Your task to perform on an android device: turn notification dots on Image 0: 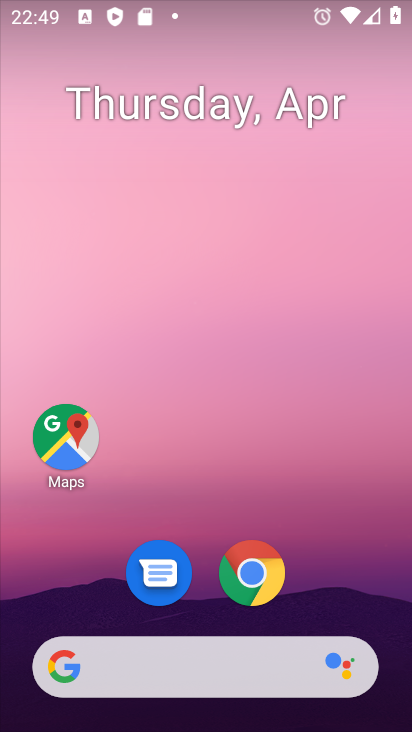
Step 0: drag from (302, 606) to (364, 6)
Your task to perform on an android device: turn notification dots on Image 1: 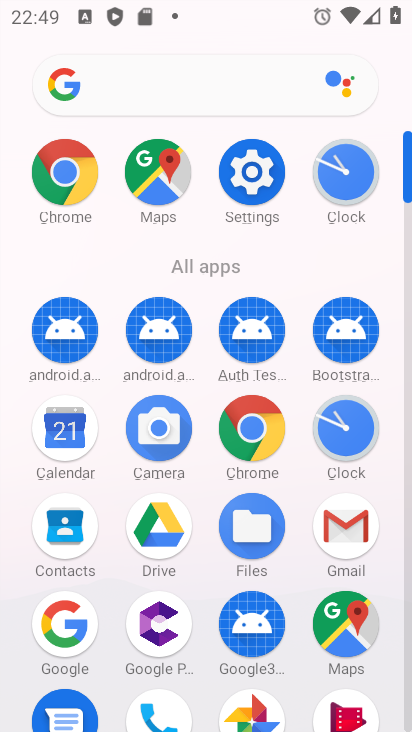
Step 1: click (247, 170)
Your task to perform on an android device: turn notification dots on Image 2: 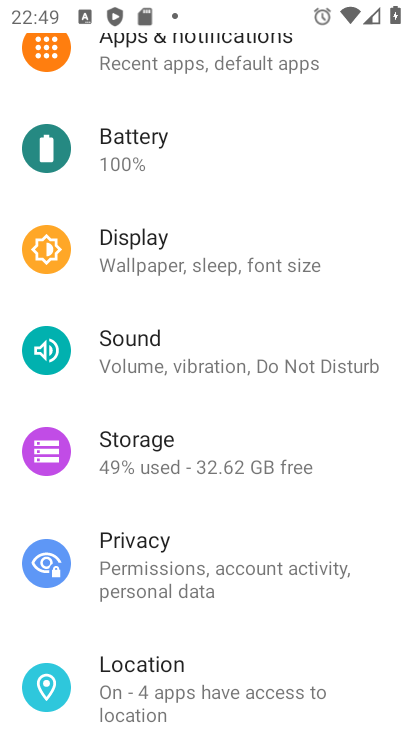
Step 2: drag from (244, 166) to (225, 469)
Your task to perform on an android device: turn notification dots on Image 3: 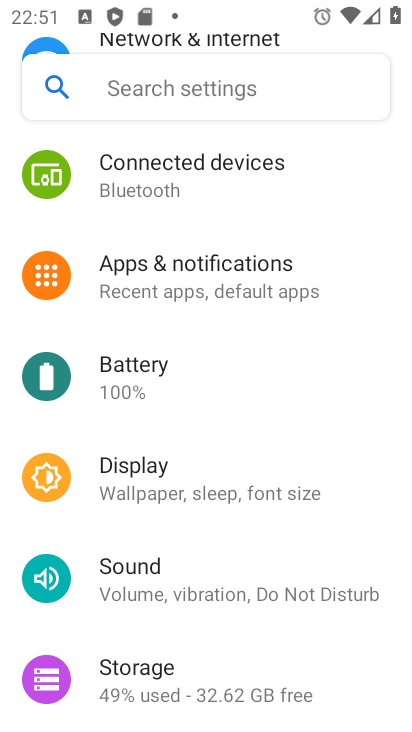
Step 3: click (325, 273)
Your task to perform on an android device: turn notification dots on Image 4: 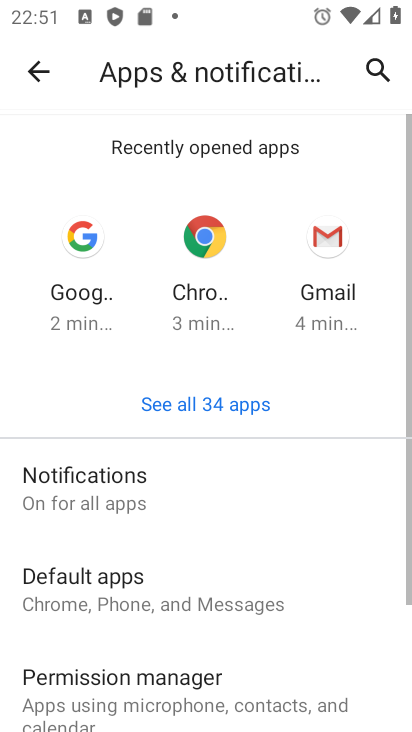
Step 4: drag from (273, 556) to (339, 65)
Your task to perform on an android device: turn notification dots on Image 5: 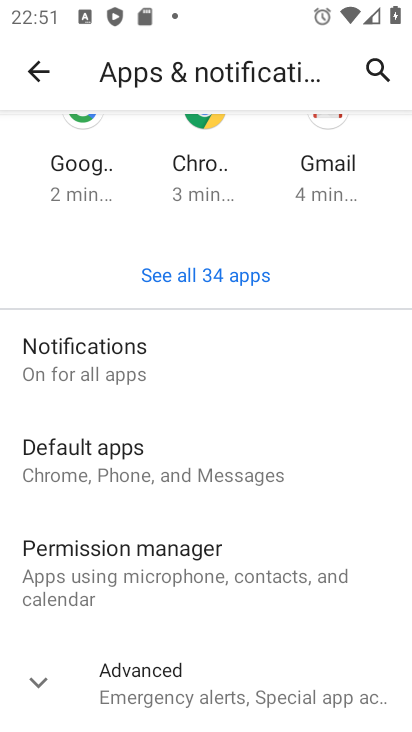
Step 5: drag from (121, 632) to (149, 493)
Your task to perform on an android device: turn notification dots on Image 6: 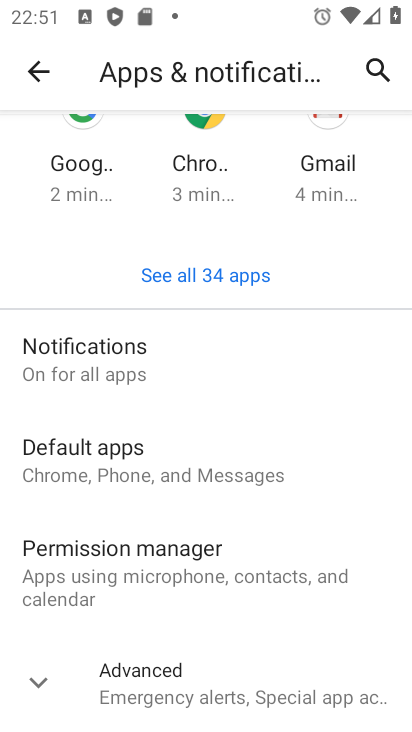
Step 6: click (124, 358)
Your task to perform on an android device: turn notification dots on Image 7: 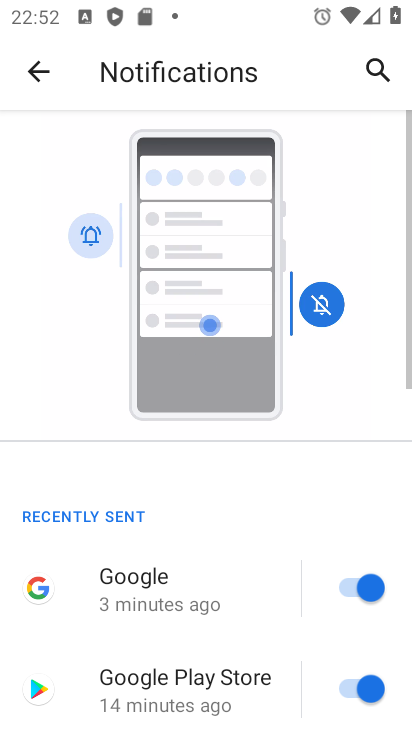
Step 7: drag from (219, 651) to (289, 302)
Your task to perform on an android device: turn notification dots on Image 8: 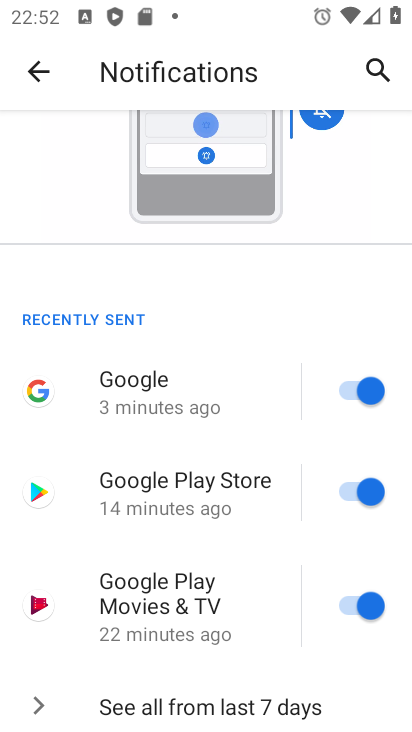
Step 8: drag from (140, 642) to (205, 345)
Your task to perform on an android device: turn notification dots on Image 9: 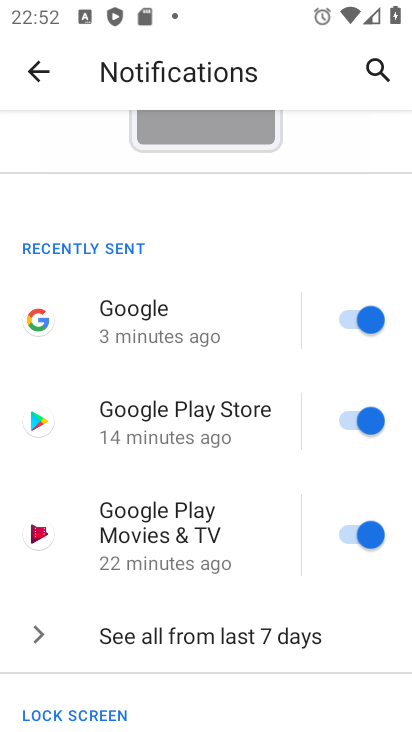
Step 9: drag from (208, 601) to (243, 202)
Your task to perform on an android device: turn notification dots on Image 10: 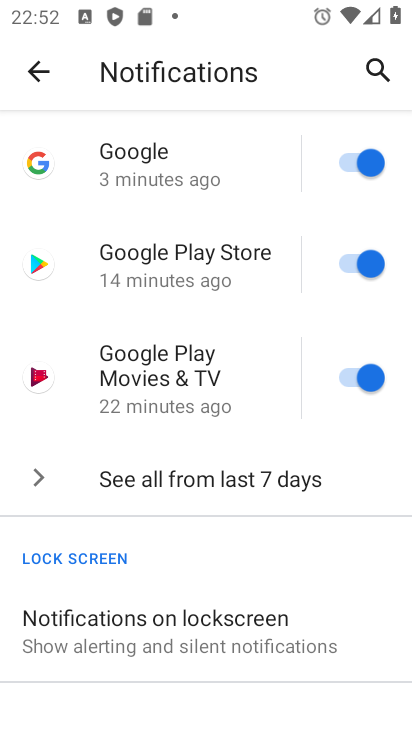
Step 10: drag from (232, 628) to (226, 233)
Your task to perform on an android device: turn notification dots on Image 11: 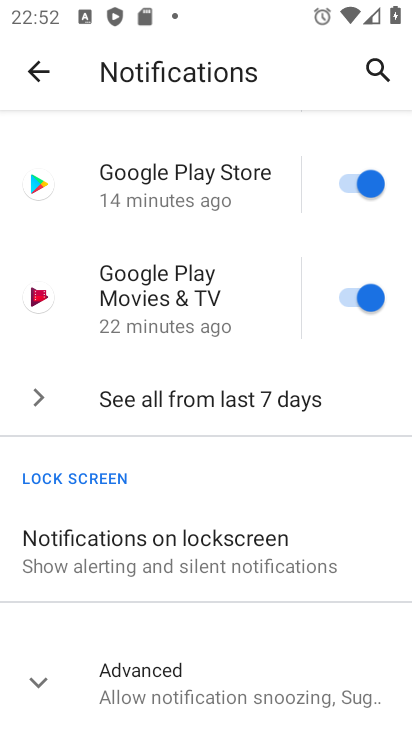
Step 11: click (202, 669)
Your task to perform on an android device: turn notification dots on Image 12: 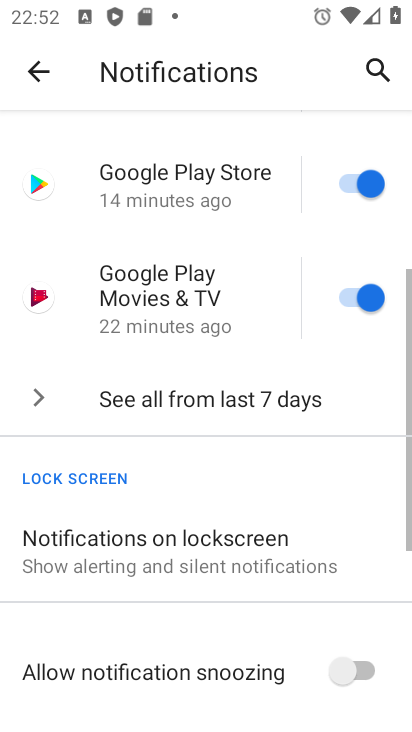
Step 12: task complete